Your task to perform on an android device: Go to internet settings Image 0: 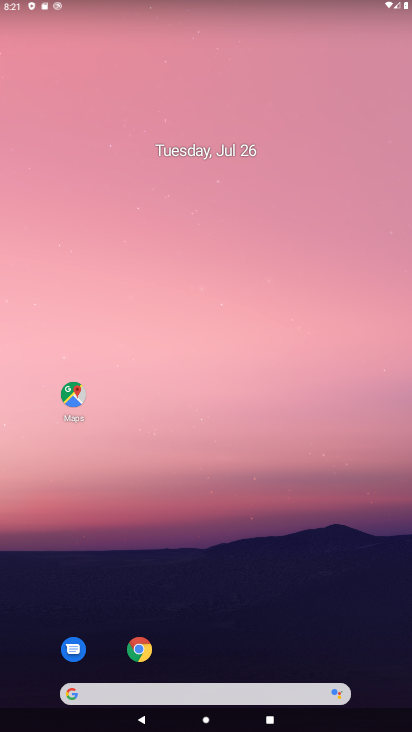
Step 0: drag from (172, 629) to (217, 212)
Your task to perform on an android device: Go to internet settings Image 1: 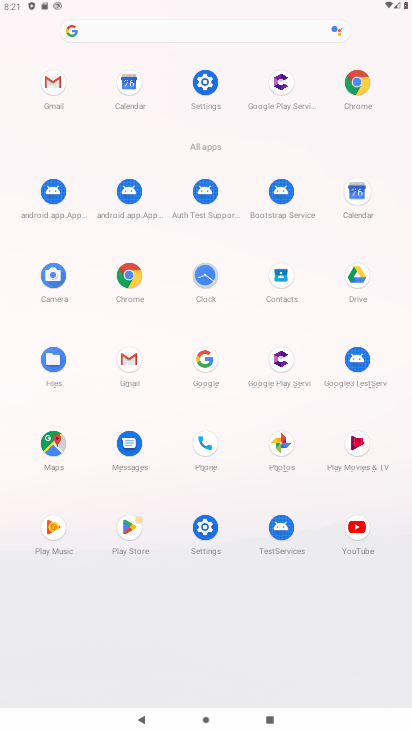
Step 1: click (202, 526)
Your task to perform on an android device: Go to internet settings Image 2: 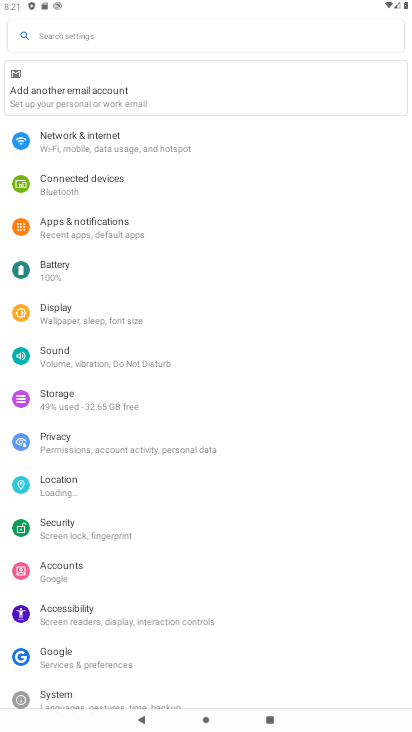
Step 2: click (95, 141)
Your task to perform on an android device: Go to internet settings Image 3: 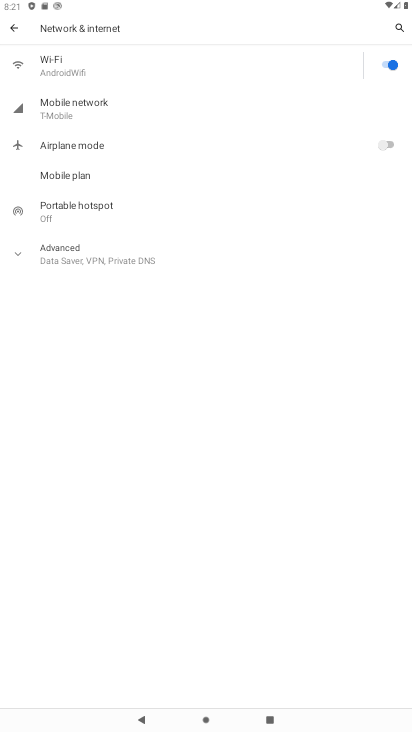
Step 3: task complete